Your task to perform on an android device: Clear the shopping cart on amazon.com. Add logitech g502 to the cart on amazon.com, then select checkout. Image 0: 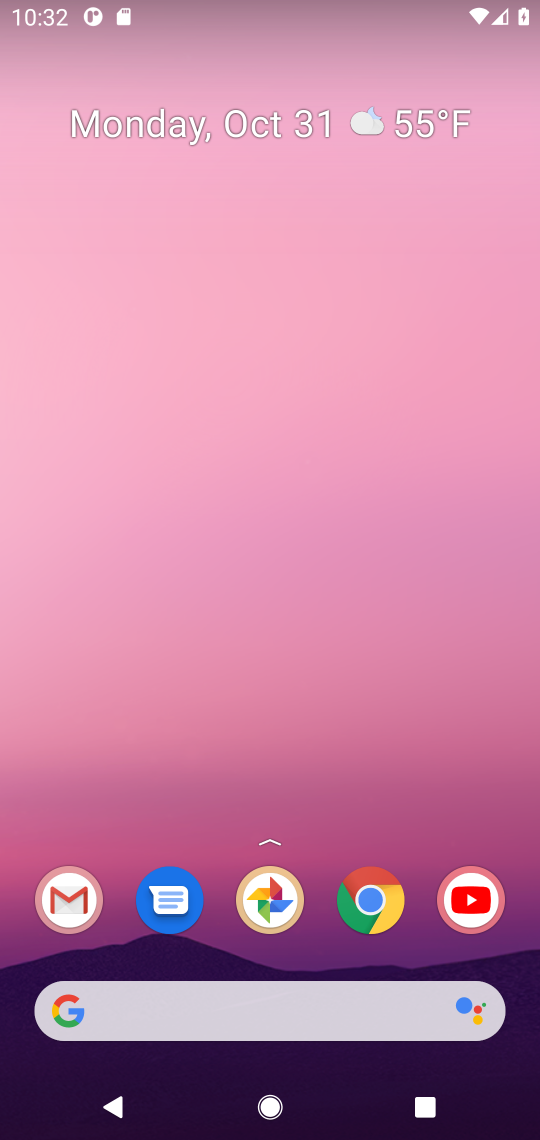
Step 0: click (371, 906)
Your task to perform on an android device: Clear the shopping cart on amazon.com. Add logitech g502 to the cart on amazon.com, then select checkout. Image 1: 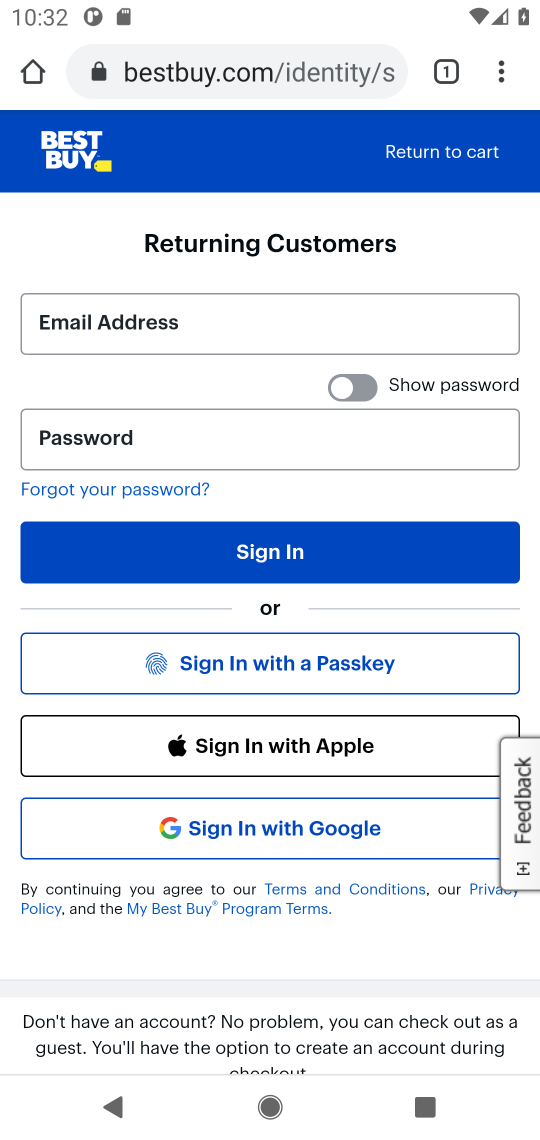
Step 1: click (325, 65)
Your task to perform on an android device: Clear the shopping cart on amazon.com. Add logitech g502 to the cart on amazon.com, then select checkout. Image 2: 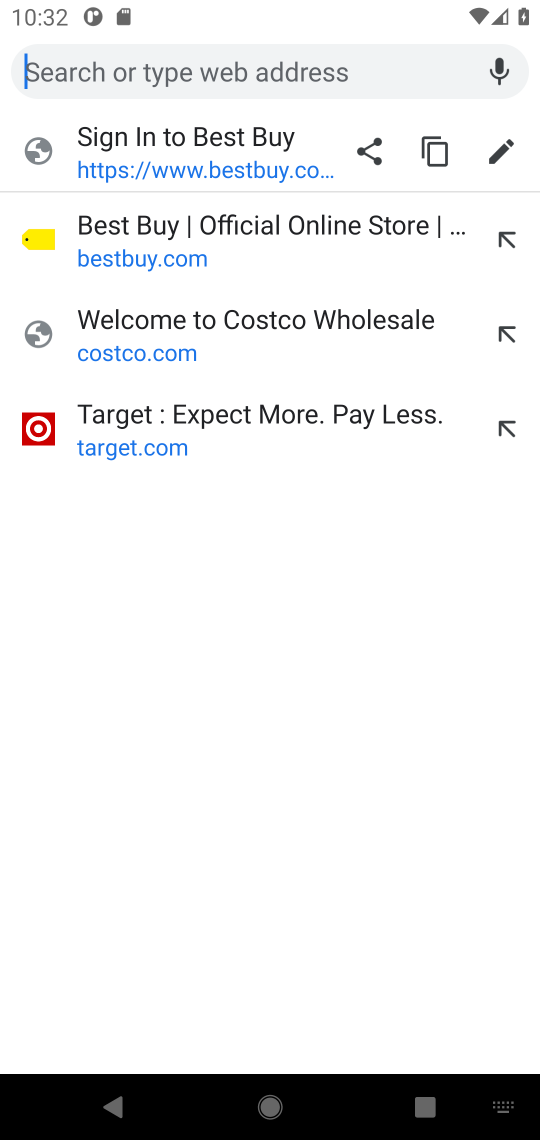
Step 2: type "amazon.com"
Your task to perform on an android device: Clear the shopping cart on amazon.com. Add logitech g502 to the cart on amazon.com, then select checkout. Image 3: 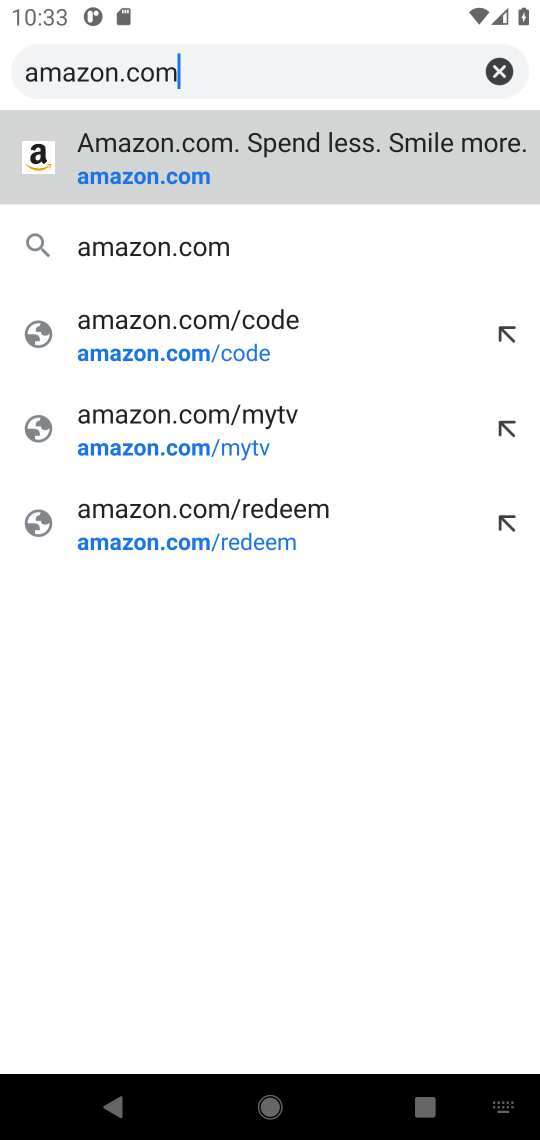
Step 3: click (162, 173)
Your task to perform on an android device: Clear the shopping cart on amazon.com. Add logitech g502 to the cart on amazon.com, then select checkout. Image 4: 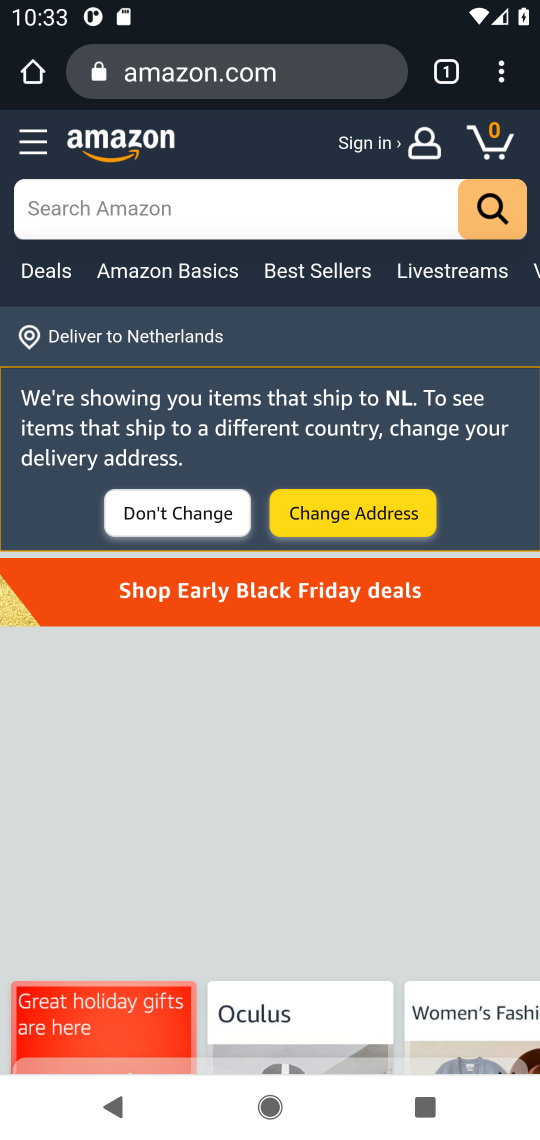
Step 4: click (274, 212)
Your task to perform on an android device: Clear the shopping cart on amazon.com. Add logitech g502 to the cart on amazon.com, then select checkout. Image 5: 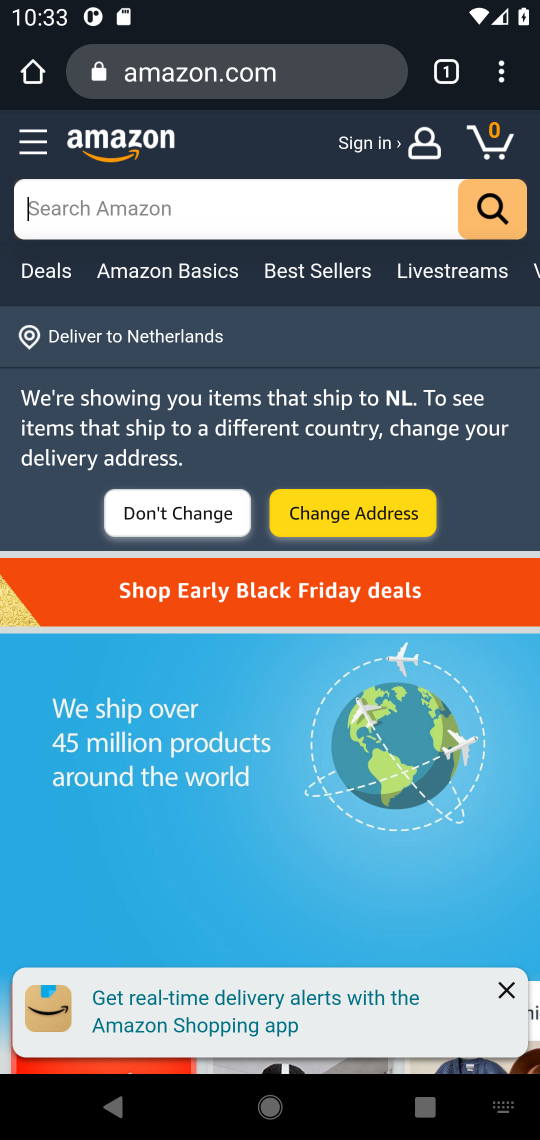
Step 5: type "logitech g502 "
Your task to perform on an android device: Clear the shopping cart on amazon.com. Add logitech g502 to the cart on amazon.com, then select checkout. Image 6: 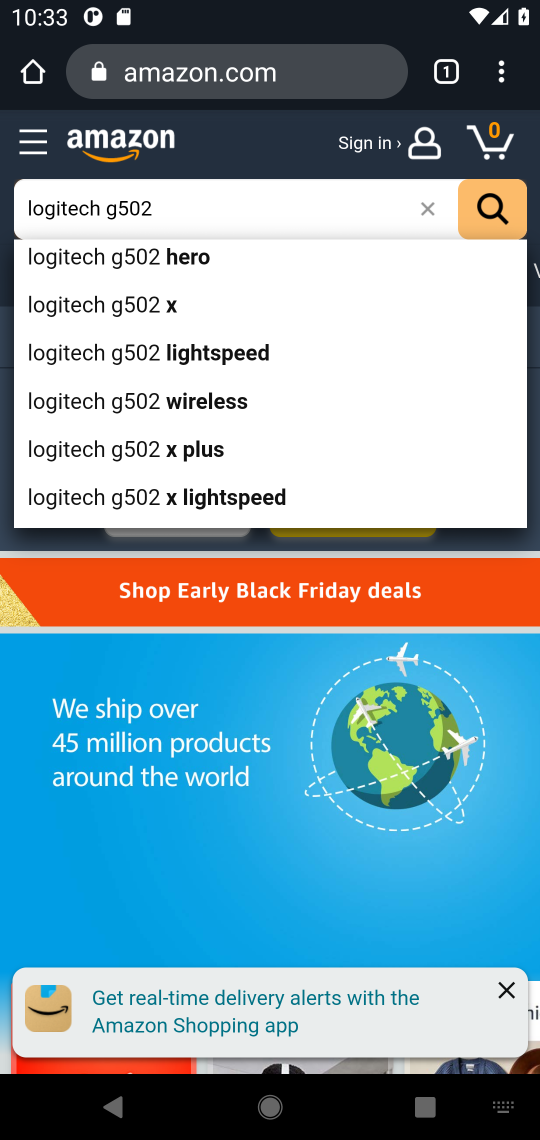
Step 6: click (500, 215)
Your task to perform on an android device: Clear the shopping cart on amazon.com. Add logitech g502 to the cart on amazon.com, then select checkout. Image 7: 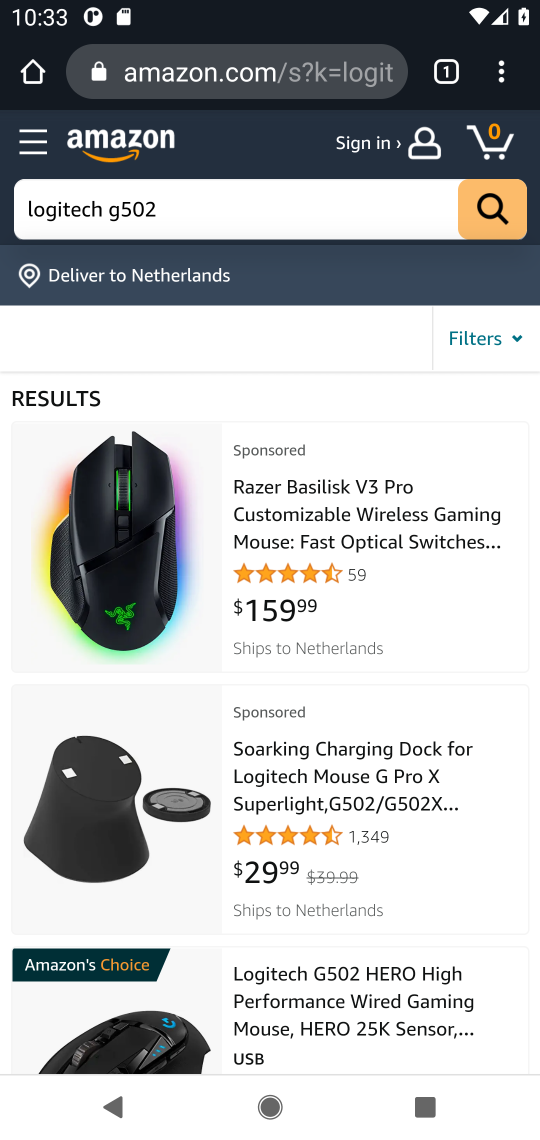
Step 7: click (239, 776)
Your task to perform on an android device: Clear the shopping cart on amazon.com. Add logitech g502 to the cart on amazon.com, then select checkout. Image 8: 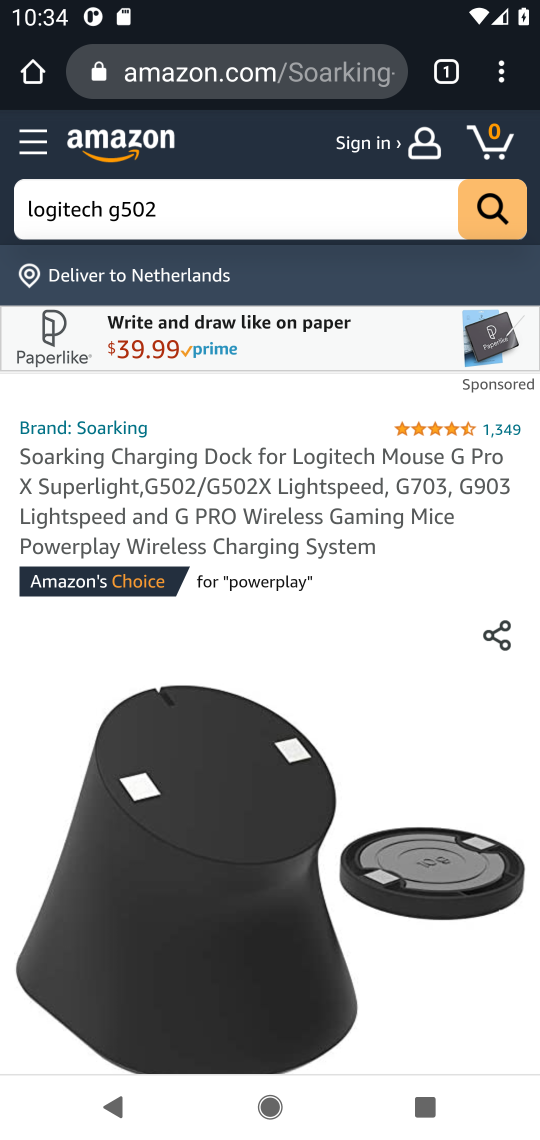
Step 8: drag from (200, 885) to (253, 403)
Your task to perform on an android device: Clear the shopping cart on amazon.com. Add logitech g502 to the cart on amazon.com, then select checkout. Image 9: 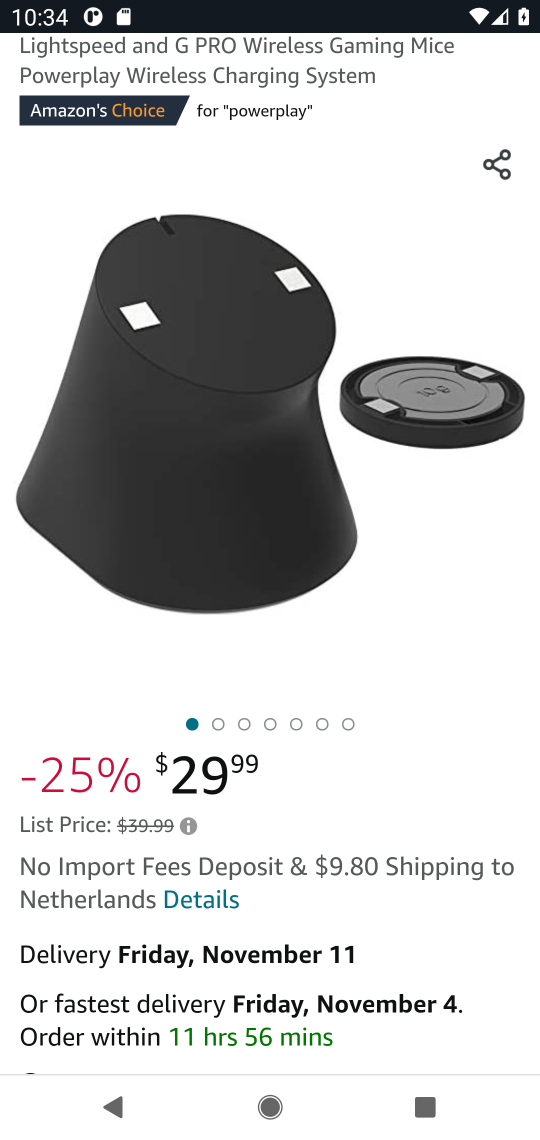
Step 9: drag from (223, 909) to (241, 382)
Your task to perform on an android device: Clear the shopping cart on amazon.com. Add logitech g502 to the cart on amazon.com, then select checkout. Image 10: 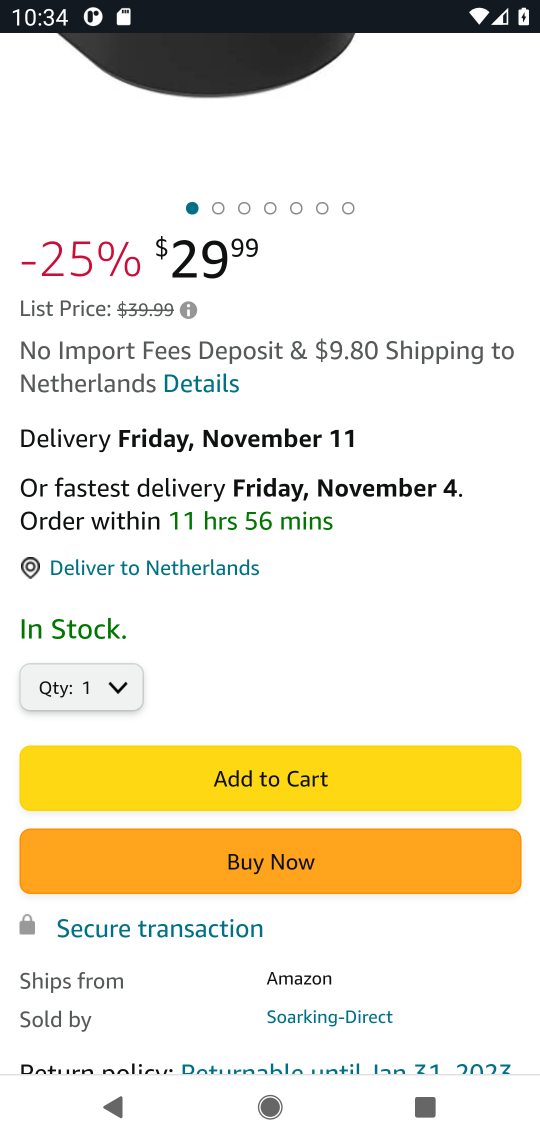
Step 10: click (222, 776)
Your task to perform on an android device: Clear the shopping cart on amazon.com. Add logitech g502 to the cart on amazon.com, then select checkout. Image 11: 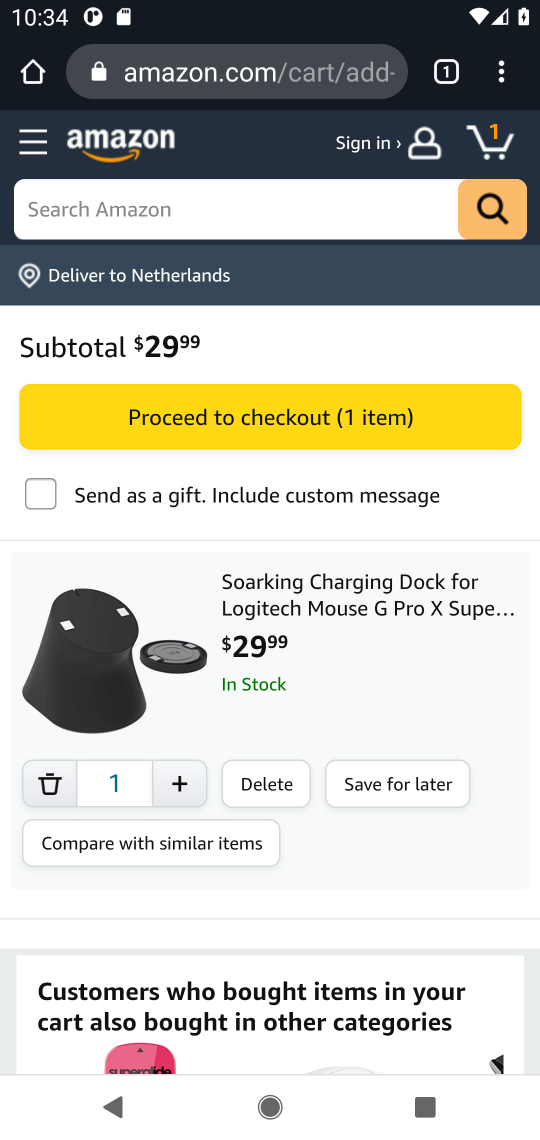
Step 11: click (241, 425)
Your task to perform on an android device: Clear the shopping cart on amazon.com. Add logitech g502 to the cart on amazon.com, then select checkout. Image 12: 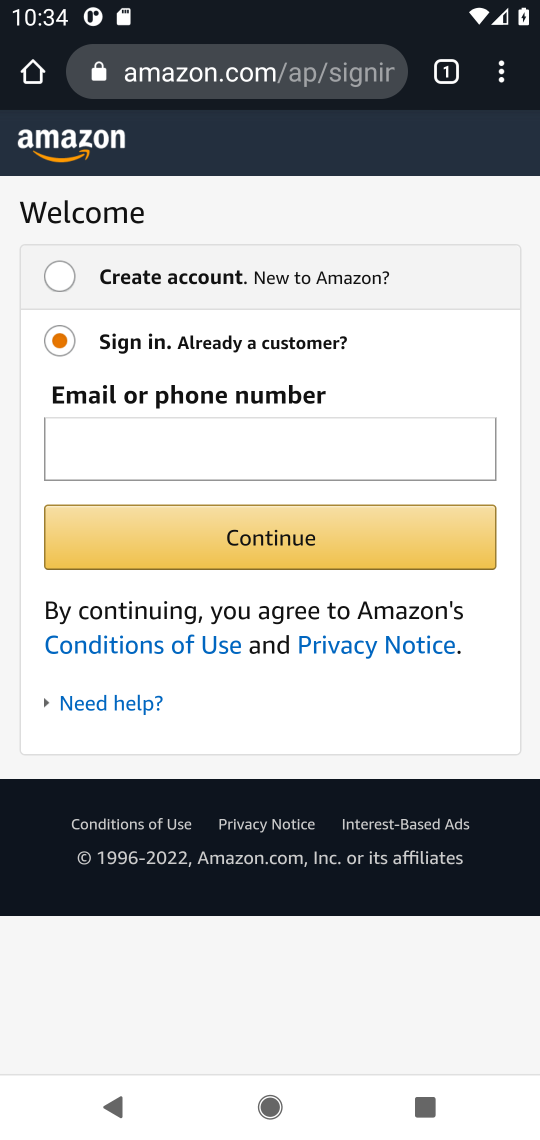
Step 12: task complete